Your task to perform on an android device: Check the weather Image 0: 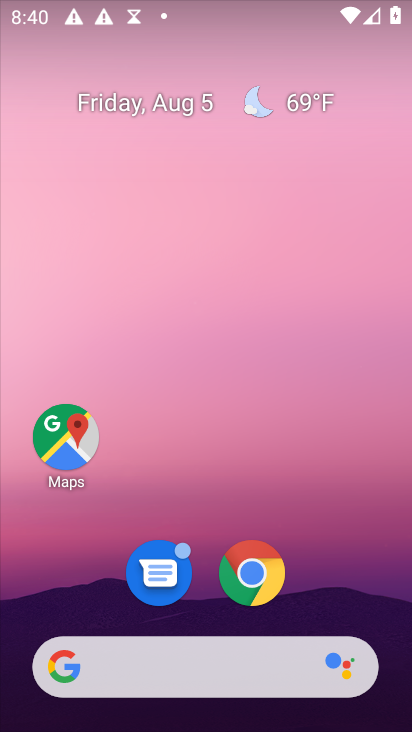
Step 0: drag from (212, 689) to (227, 144)
Your task to perform on an android device: Check the weather Image 1: 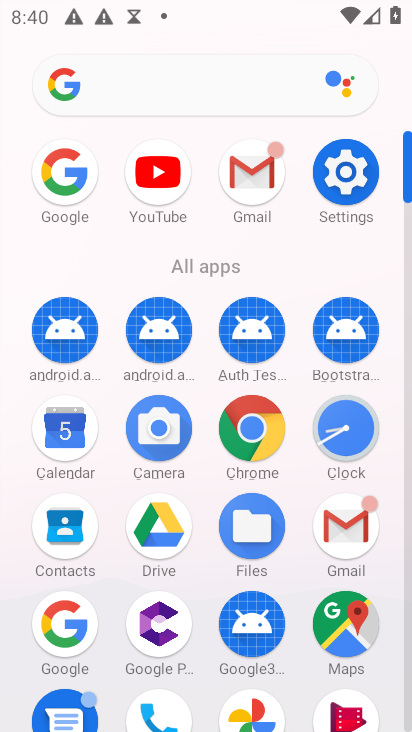
Step 1: click (61, 171)
Your task to perform on an android device: Check the weather Image 2: 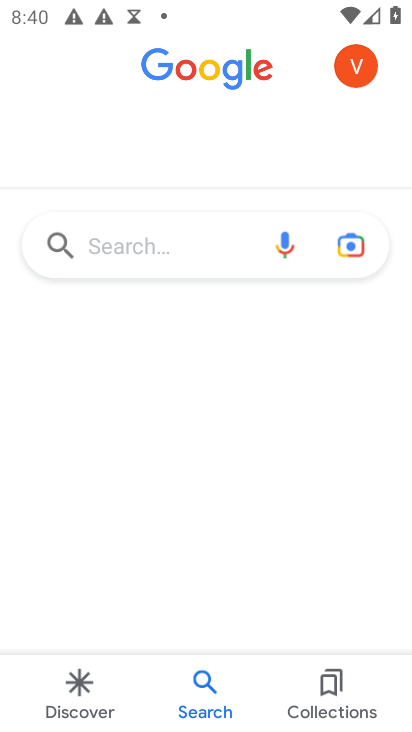
Step 2: click (197, 249)
Your task to perform on an android device: Check the weather Image 3: 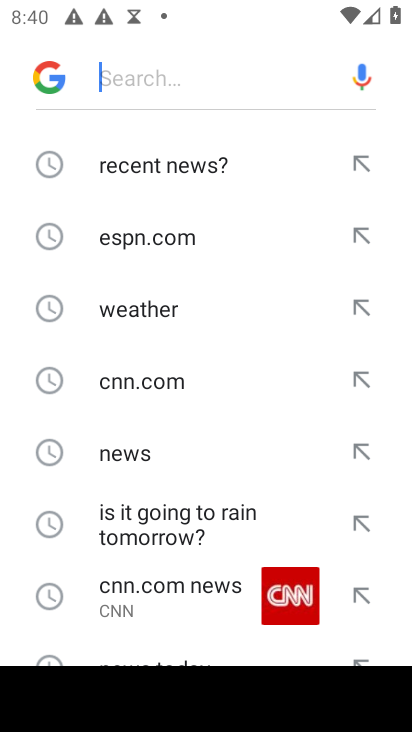
Step 3: click (147, 314)
Your task to perform on an android device: Check the weather Image 4: 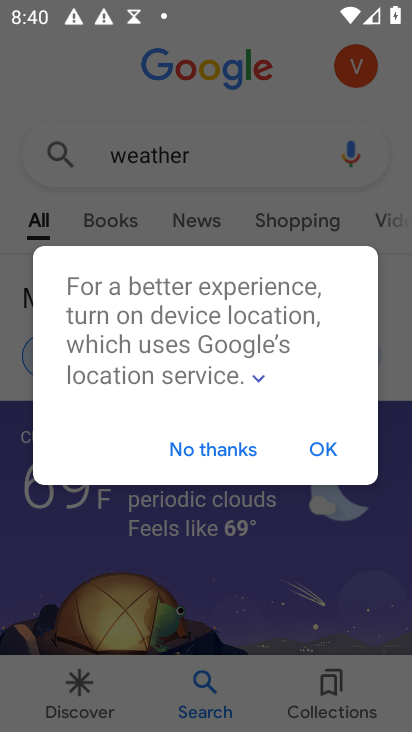
Step 4: click (323, 451)
Your task to perform on an android device: Check the weather Image 5: 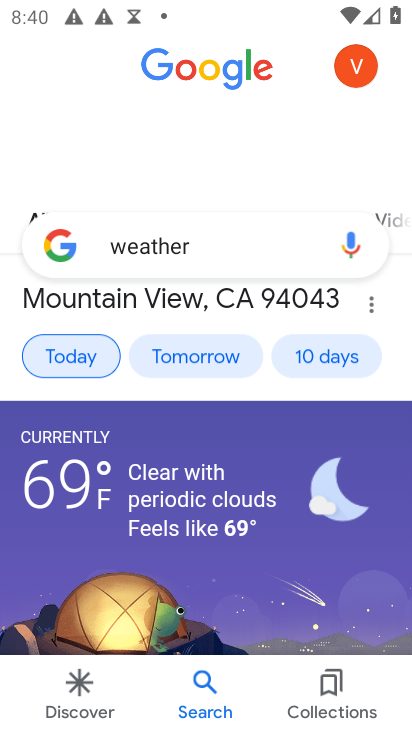
Step 5: task complete